Your task to perform on an android device: change the clock display to digital Image 0: 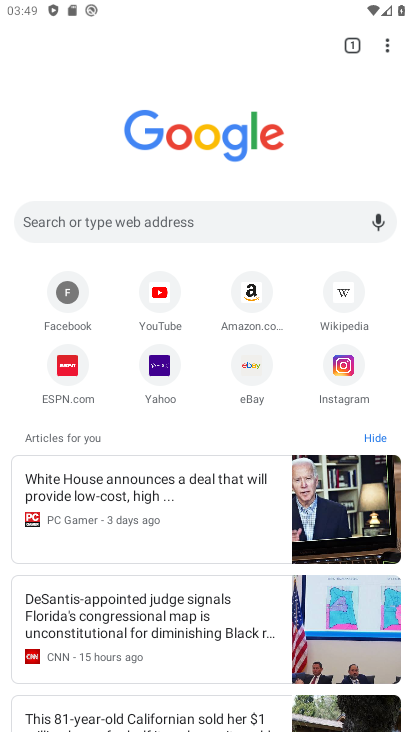
Step 0: press home button
Your task to perform on an android device: change the clock display to digital Image 1: 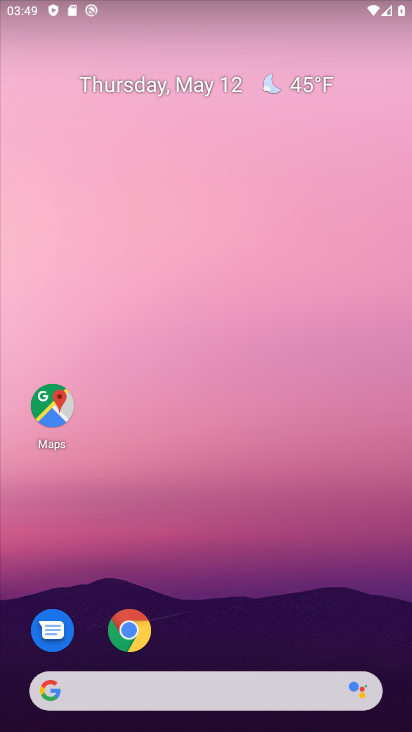
Step 1: drag from (236, 657) to (331, 206)
Your task to perform on an android device: change the clock display to digital Image 2: 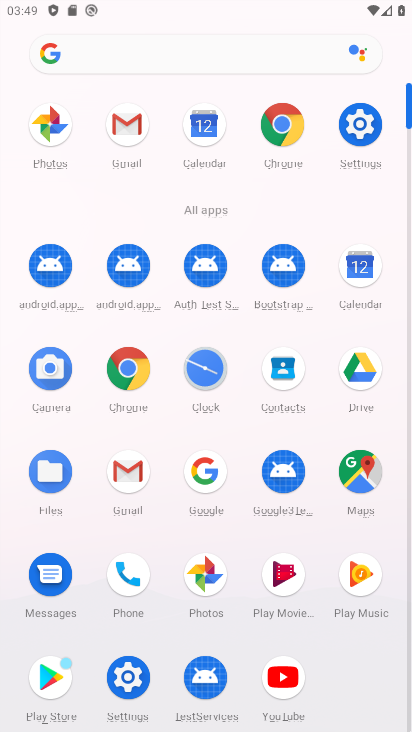
Step 2: click (215, 381)
Your task to perform on an android device: change the clock display to digital Image 3: 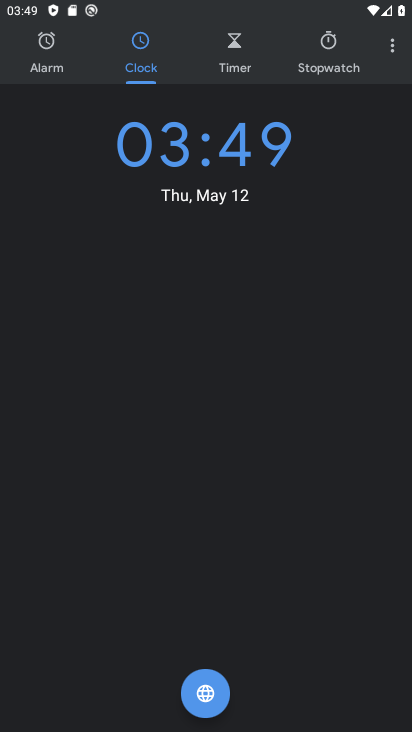
Step 3: click (400, 57)
Your task to perform on an android device: change the clock display to digital Image 4: 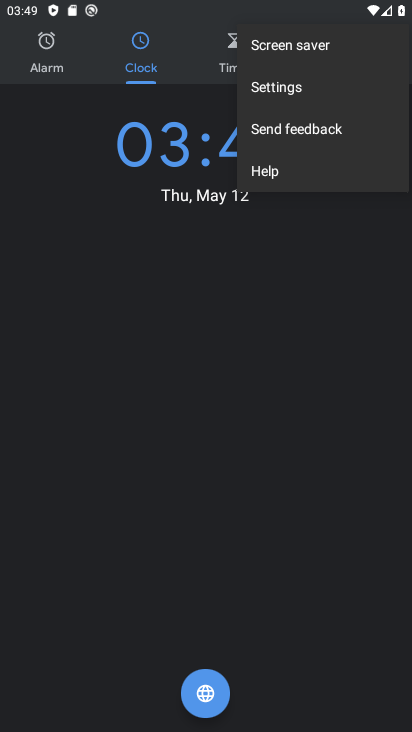
Step 4: click (294, 91)
Your task to perform on an android device: change the clock display to digital Image 5: 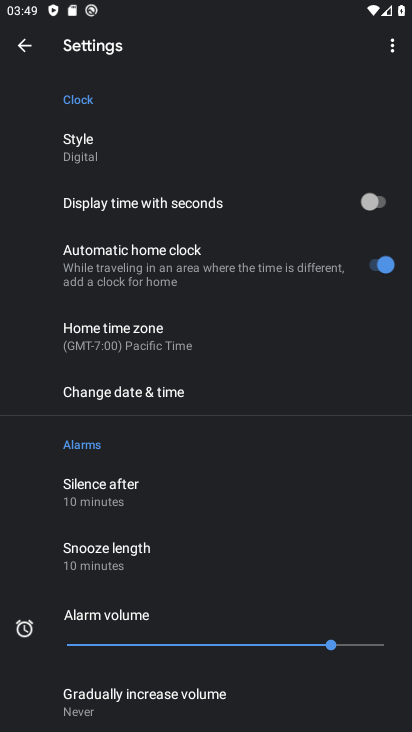
Step 5: task complete